Your task to perform on an android device: Go to location settings Image 0: 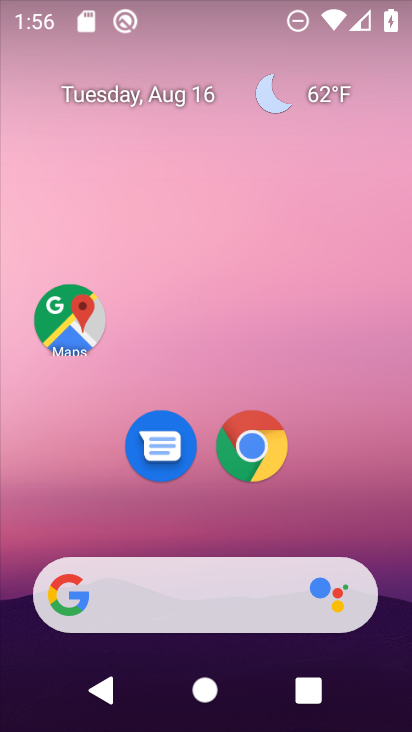
Step 0: drag from (232, 538) to (225, 33)
Your task to perform on an android device: Go to location settings Image 1: 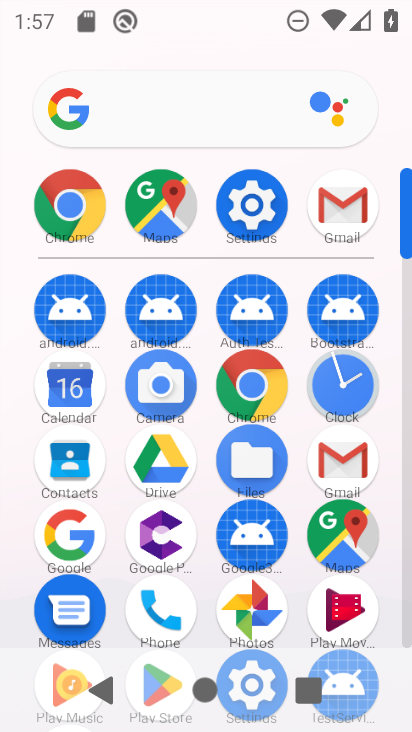
Step 1: click (257, 203)
Your task to perform on an android device: Go to location settings Image 2: 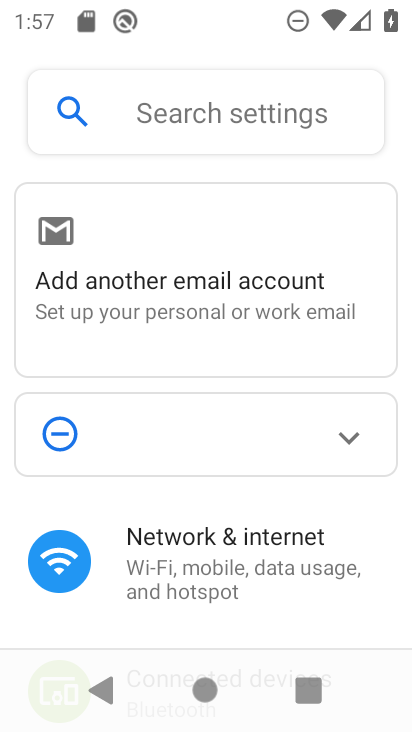
Step 2: drag from (204, 580) to (244, 43)
Your task to perform on an android device: Go to location settings Image 3: 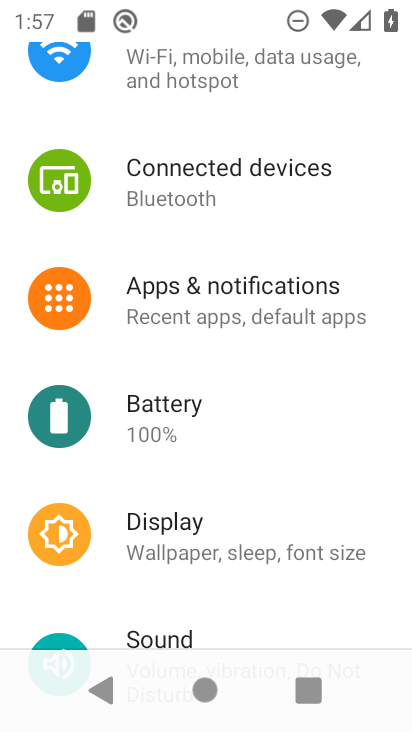
Step 3: drag from (186, 605) to (232, 54)
Your task to perform on an android device: Go to location settings Image 4: 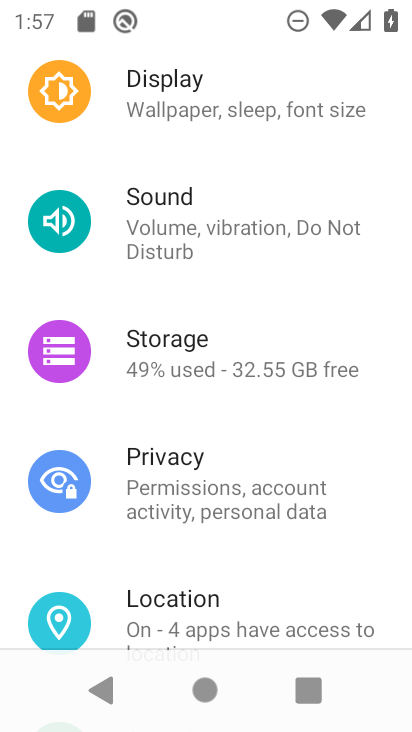
Step 4: click (211, 611)
Your task to perform on an android device: Go to location settings Image 5: 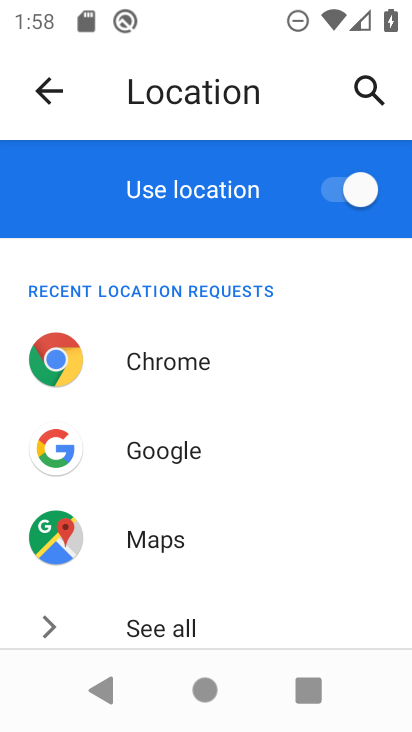
Step 5: drag from (216, 607) to (237, 265)
Your task to perform on an android device: Go to location settings Image 6: 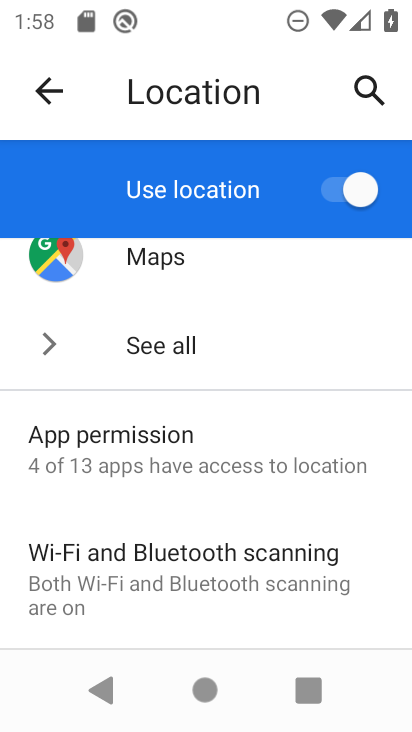
Step 6: drag from (144, 585) to (181, 238)
Your task to perform on an android device: Go to location settings Image 7: 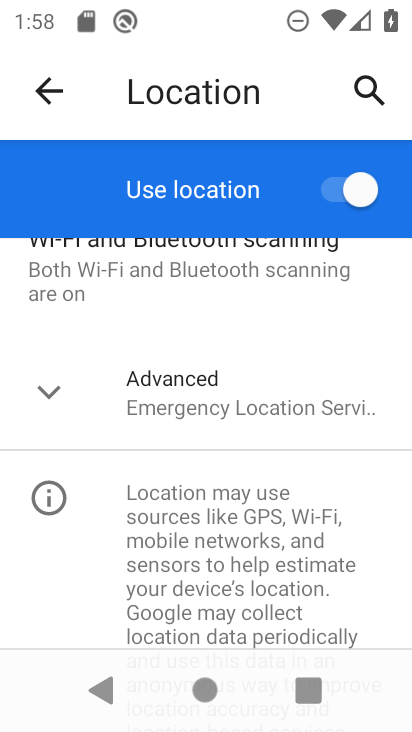
Step 7: click (51, 390)
Your task to perform on an android device: Go to location settings Image 8: 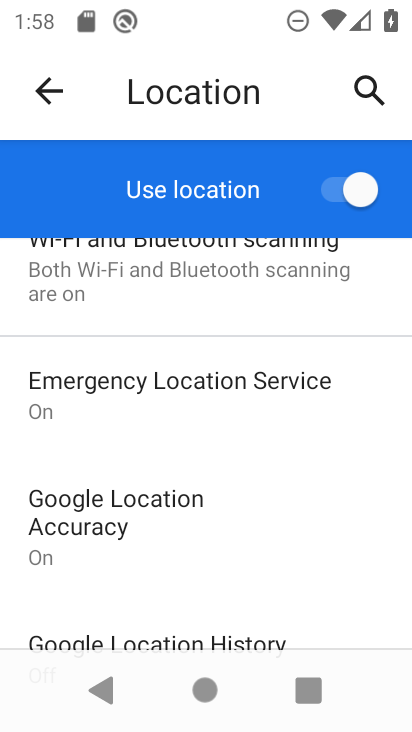
Step 8: task complete